Your task to perform on an android device: Open the web browser Image 0: 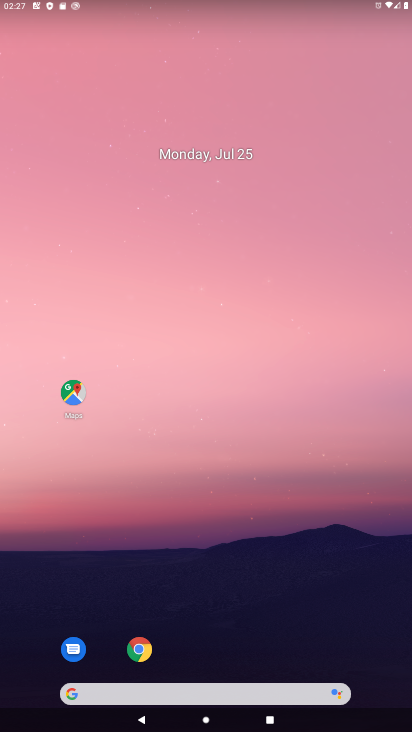
Step 0: click (137, 647)
Your task to perform on an android device: Open the web browser Image 1: 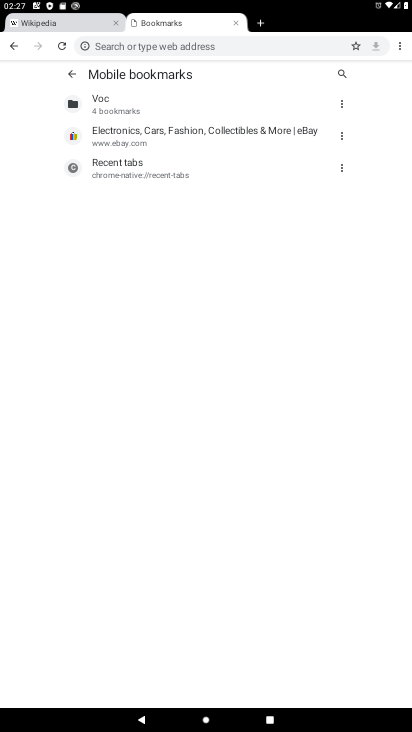
Step 1: task complete